Your task to perform on an android device: Clear all items from cart on bestbuy.com. Search for alienware area 51 on bestbuy.com, select the first entry, add it to the cart, then select checkout. Image 0: 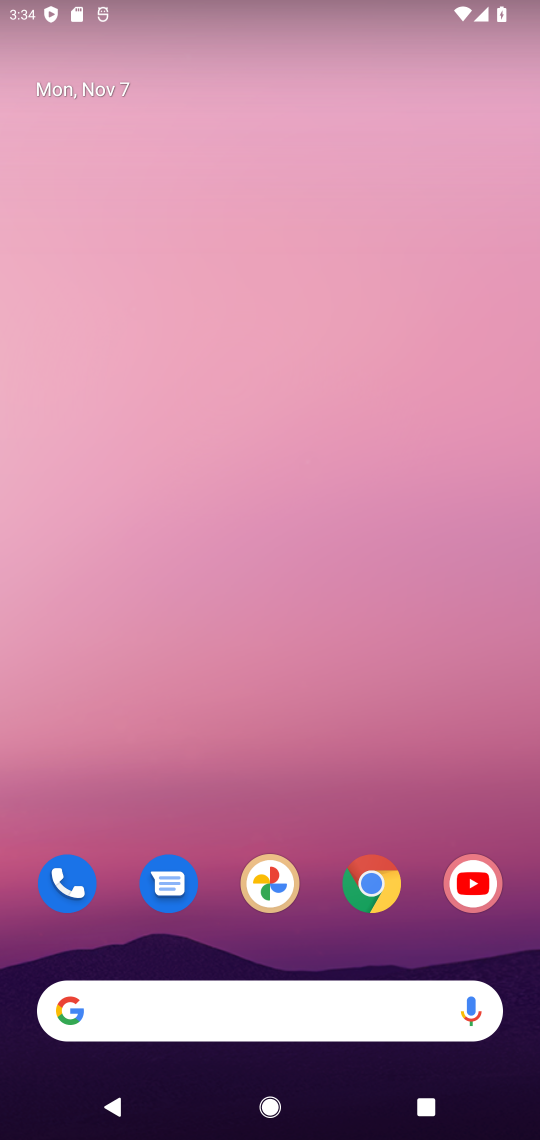
Step 0: click (375, 883)
Your task to perform on an android device: Clear all items from cart on bestbuy.com. Search for alienware area 51 on bestbuy.com, select the first entry, add it to the cart, then select checkout. Image 1: 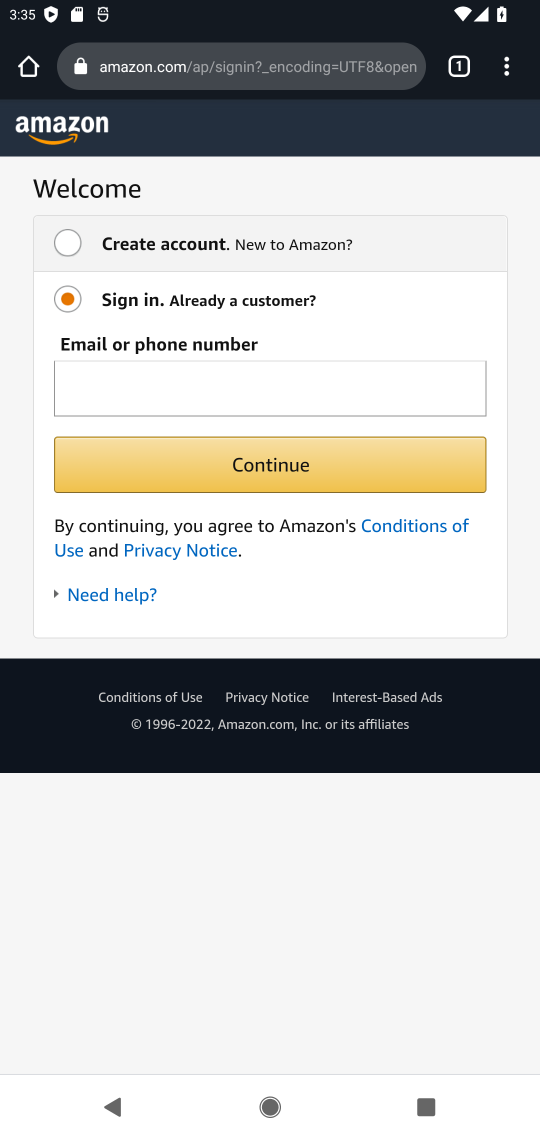
Step 1: click (312, 70)
Your task to perform on an android device: Clear all items from cart on bestbuy.com. Search for alienware area 51 on bestbuy.com, select the first entry, add it to the cart, then select checkout. Image 2: 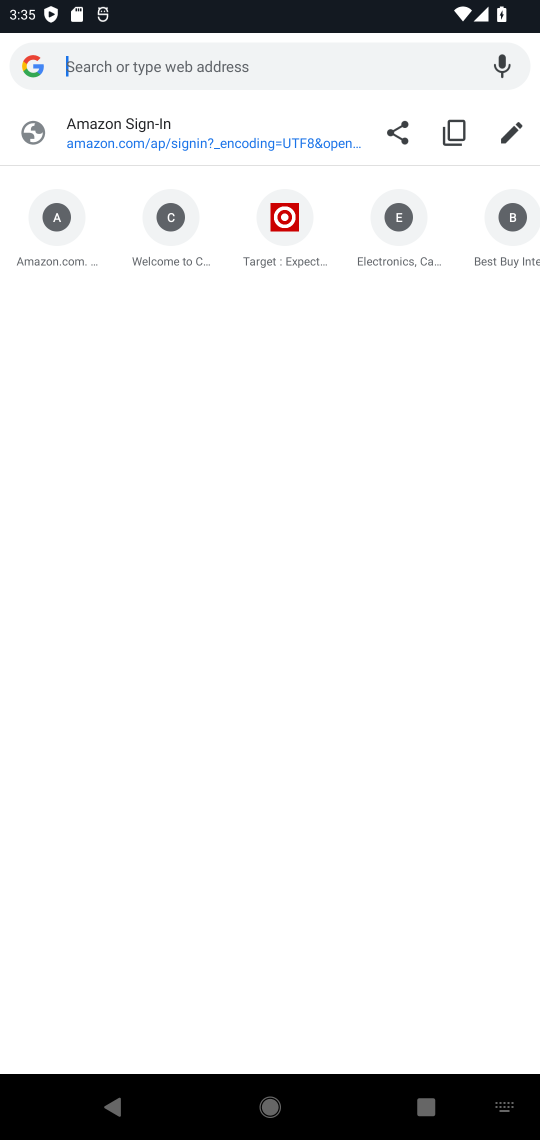
Step 2: click (519, 222)
Your task to perform on an android device: Clear all items from cart on bestbuy.com. Search for alienware area 51 on bestbuy.com, select the first entry, add it to the cart, then select checkout. Image 3: 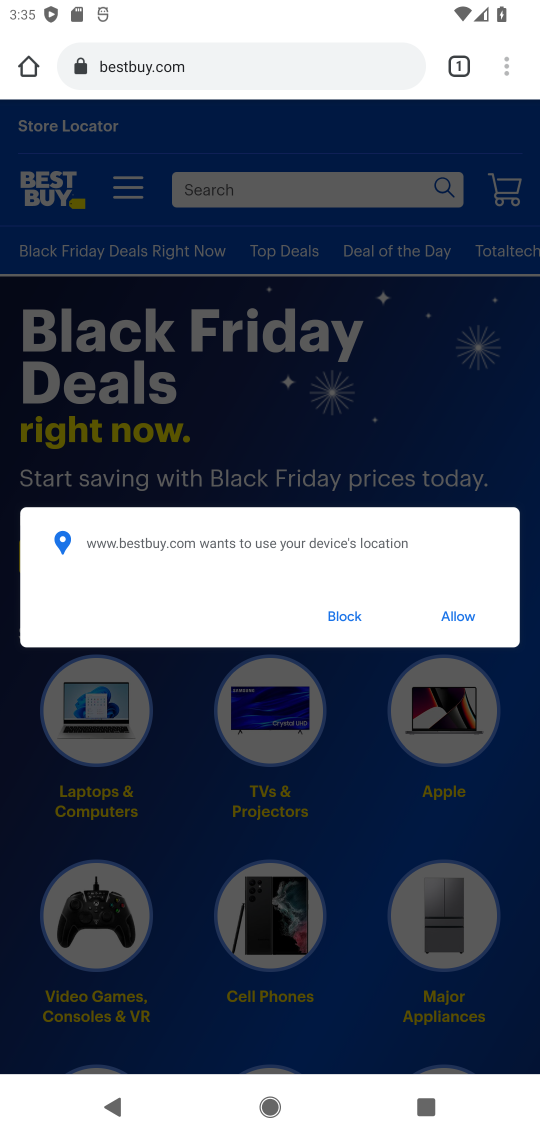
Step 3: click (460, 617)
Your task to perform on an android device: Clear all items from cart on bestbuy.com. Search for alienware area 51 on bestbuy.com, select the first entry, add it to the cart, then select checkout. Image 4: 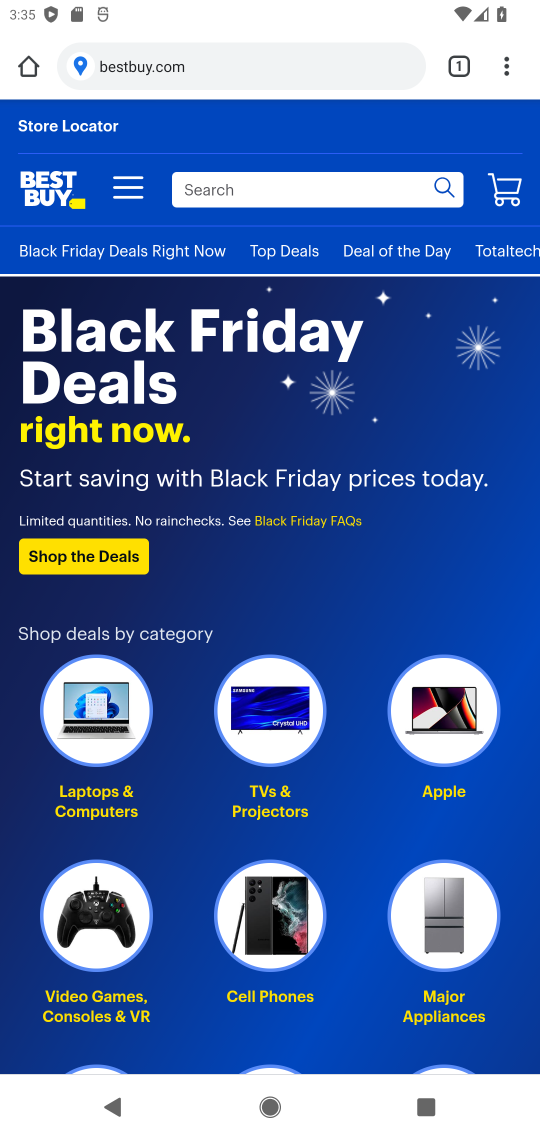
Step 4: click (362, 185)
Your task to perform on an android device: Clear all items from cart on bestbuy.com. Search for alienware area 51 on bestbuy.com, select the first entry, add it to the cart, then select checkout. Image 5: 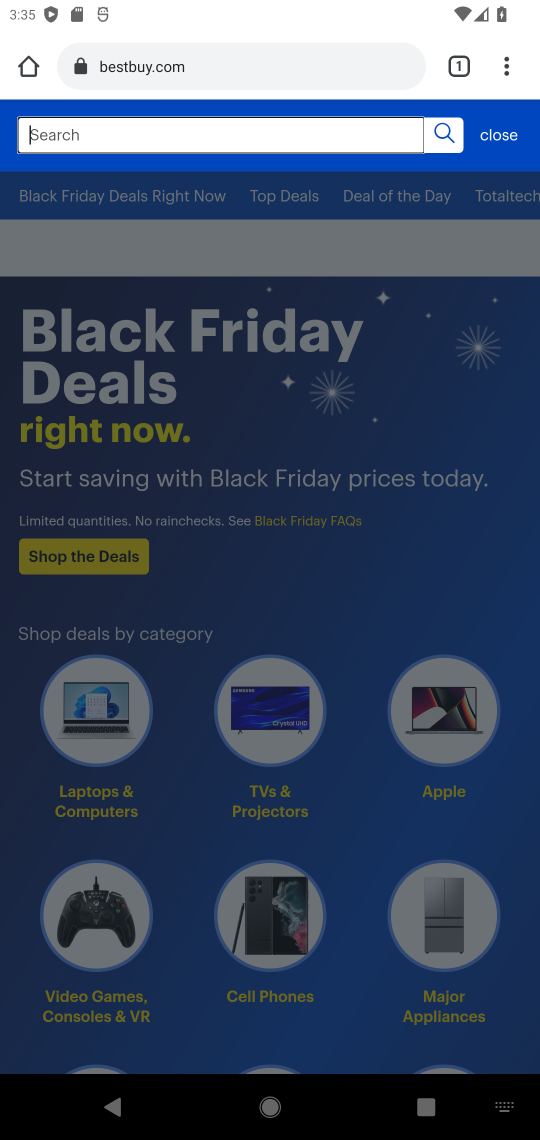
Step 5: type "alienware area 51 "
Your task to perform on an android device: Clear all items from cart on bestbuy.com. Search for alienware area 51 on bestbuy.com, select the first entry, add it to the cart, then select checkout. Image 6: 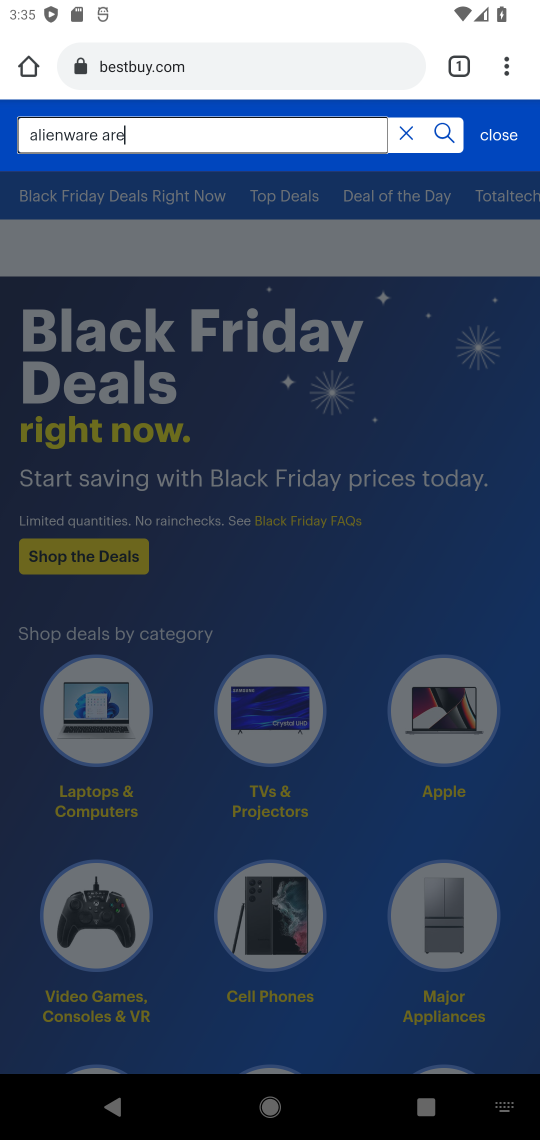
Step 6: press enter
Your task to perform on an android device: Clear all items from cart on bestbuy.com. Search for alienware area 51 on bestbuy.com, select the first entry, add it to the cart, then select checkout. Image 7: 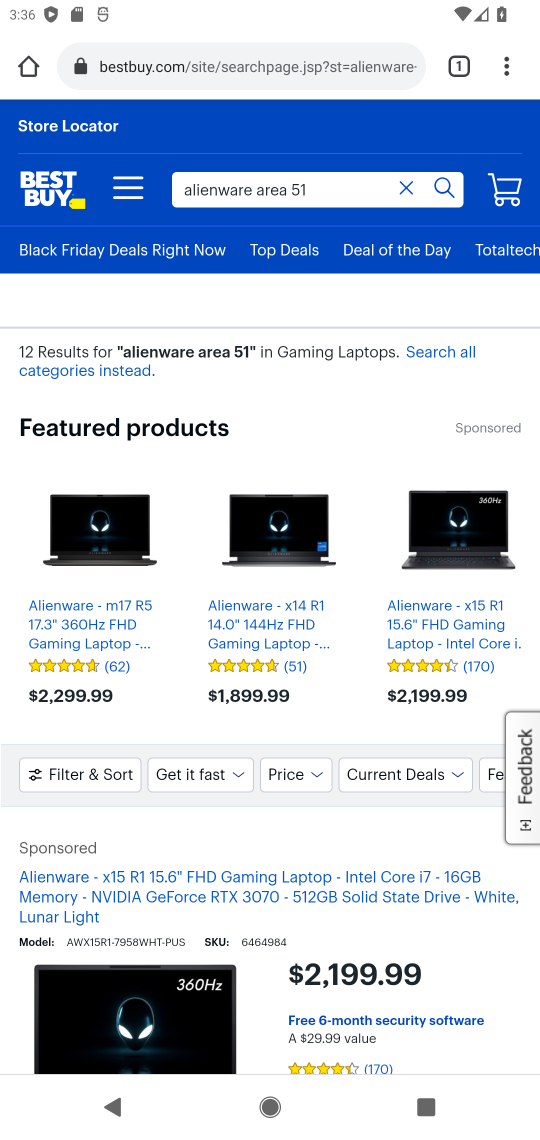
Step 7: task complete